Your task to perform on an android device: What's on my calendar today? Image 0: 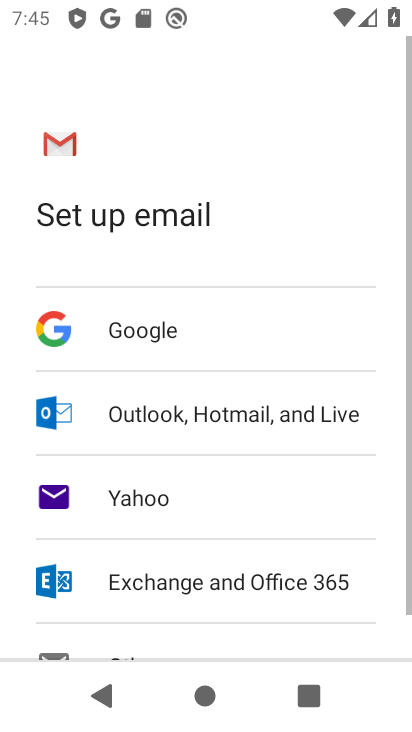
Step 0: drag from (232, 560) to (210, 198)
Your task to perform on an android device: What's on my calendar today? Image 1: 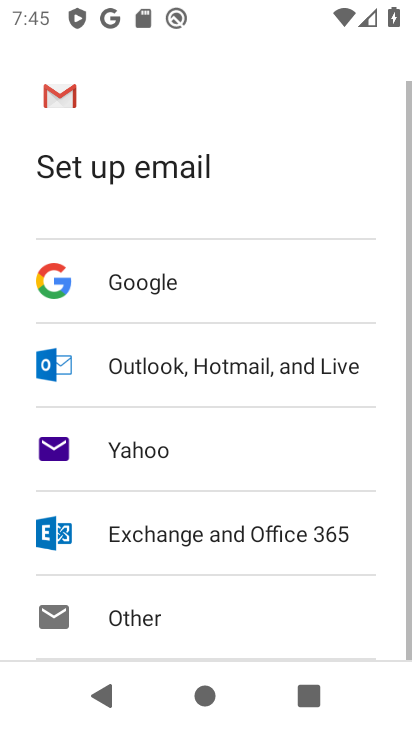
Step 1: press back button
Your task to perform on an android device: What's on my calendar today? Image 2: 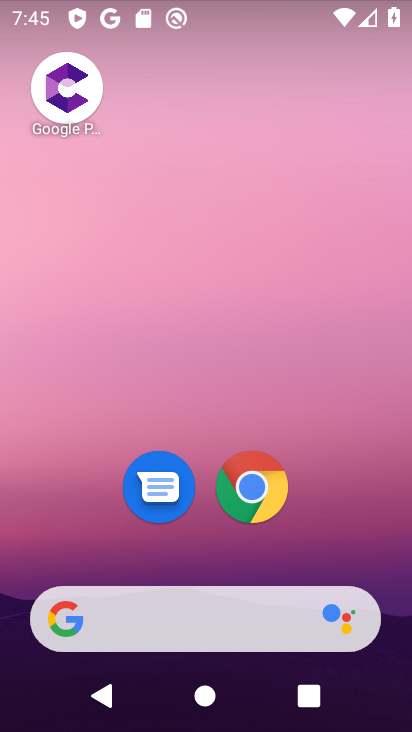
Step 2: drag from (194, 729) to (183, 181)
Your task to perform on an android device: What's on my calendar today? Image 3: 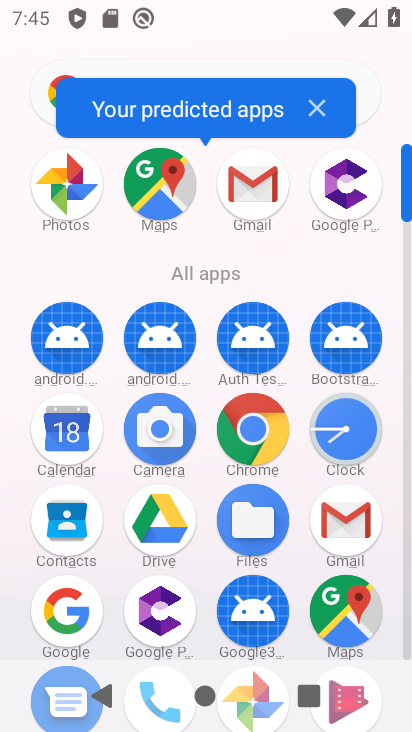
Step 3: click (67, 437)
Your task to perform on an android device: What's on my calendar today? Image 4: 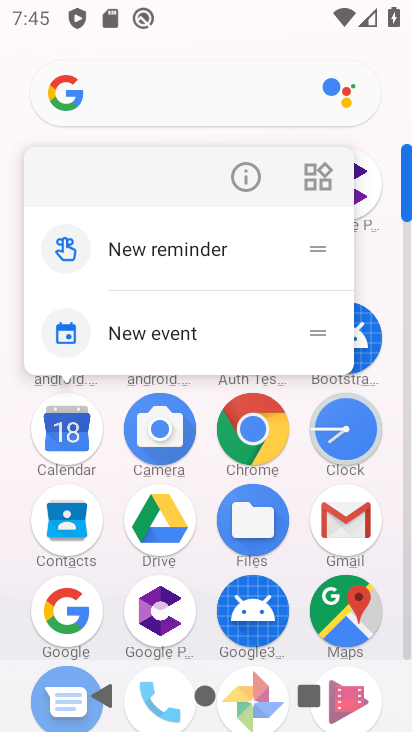
Step 4: click (61, 432)
Your task to perform on an android device: What's on my calendar today? Image 5: 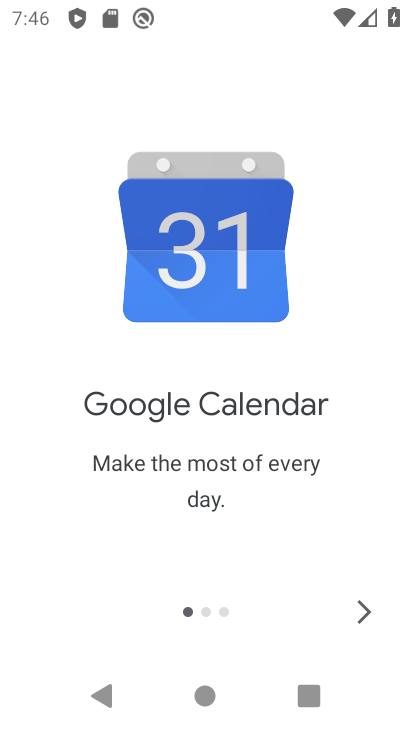
Step 5: click (356, 606)
Your task to perform on an android device: What's on my calendar today? Image 6: 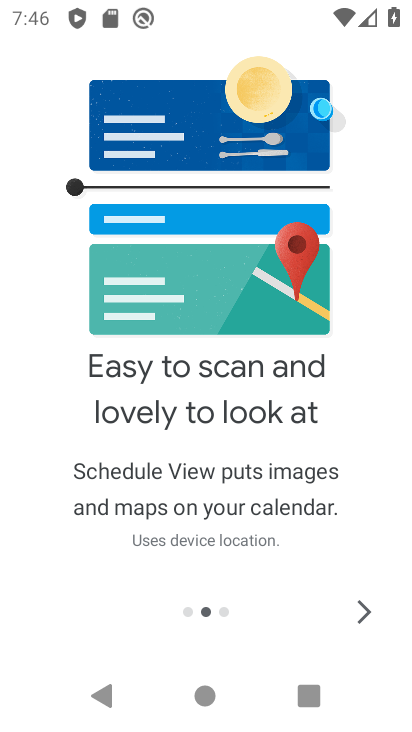
Step 6: click (364, 615)
Your task to perform on an android device: What's on my calendar today? Image 7: 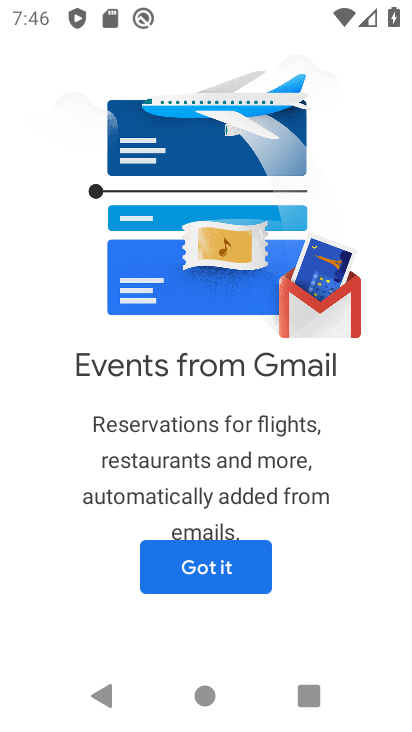
Step 7: click (253, 569)
Your task to perform on an android device: What's on my calendar today? Image 8: 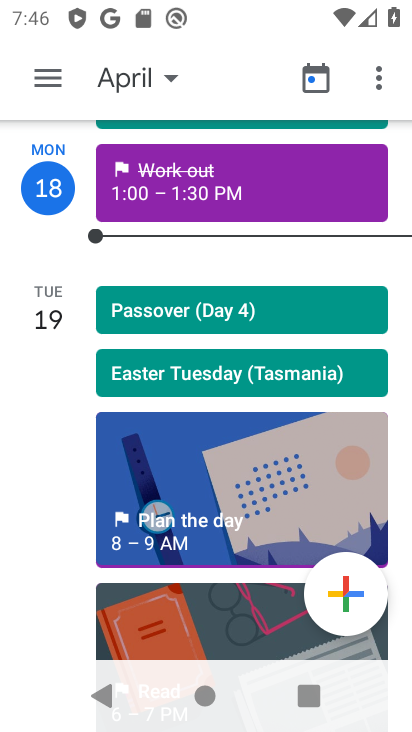
Step 8: drag from (189, 196) to (188, 575)
Your task to perform on an android device: What's on my calendar today? Image 9: 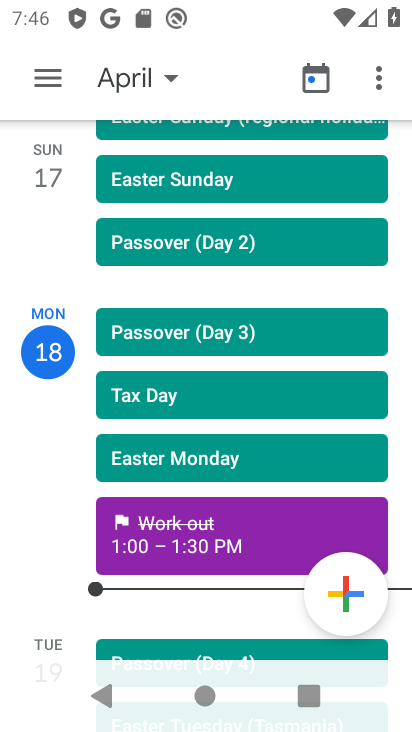
Step 9: drag from (217, 162) to (221, 396)
Your task to perform on an android device: What's on my calendar today? Image 10: 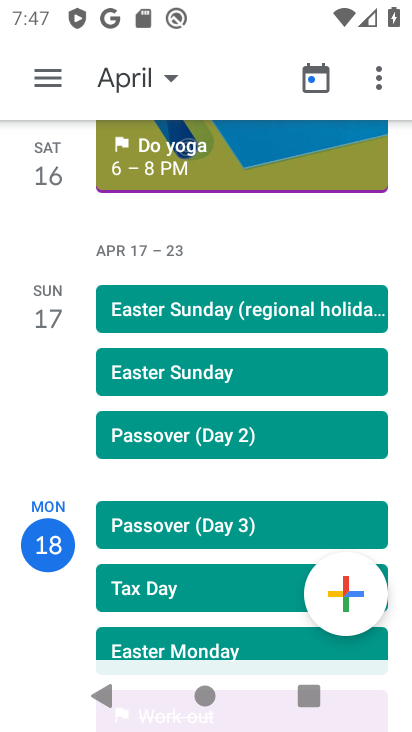
Step 10: click (131, 72)
Your task to perform on an android device: What's on my calendar today? Image 11: 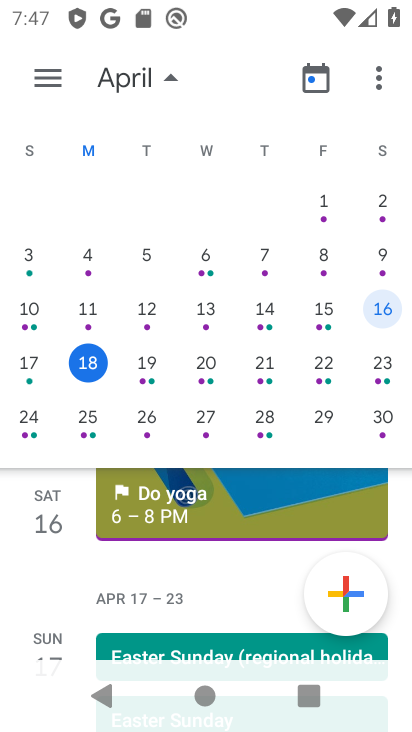
Step 11: click (89, 360)
Your task to perform on an android device: What's on my calendar today? Image 12: 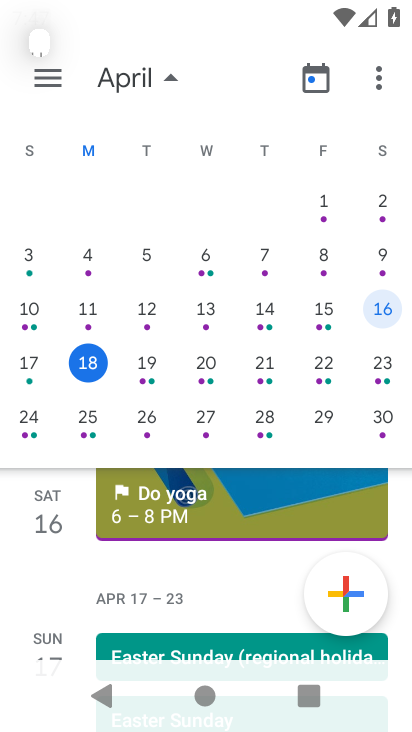
Step 12: click (49, 73)
Your task to perform on an android device: What's on my calendar today? Image 13: 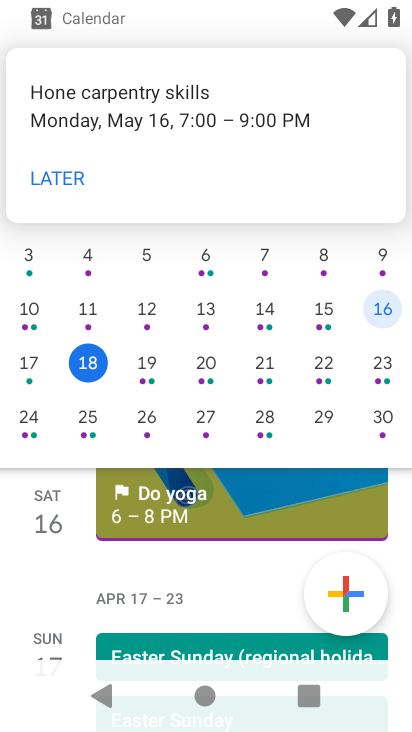
Step 13: click (61, 176)
Your task to perform on an android device: What's on my calendar today? Image 14: 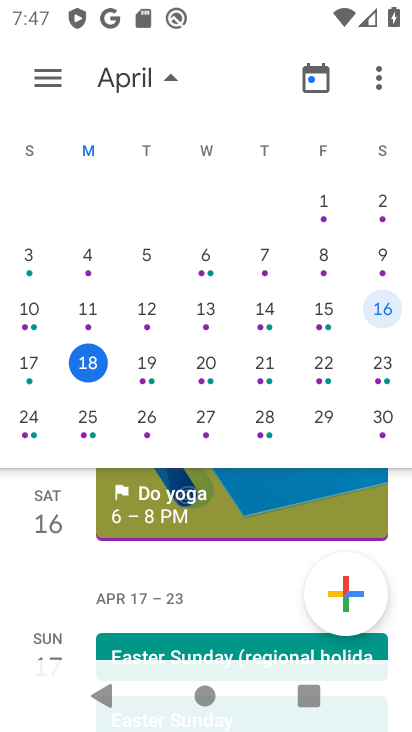
Step 14: click (48, 76)
Your task to perform on an android device: What's on my calendar today? Image 15: 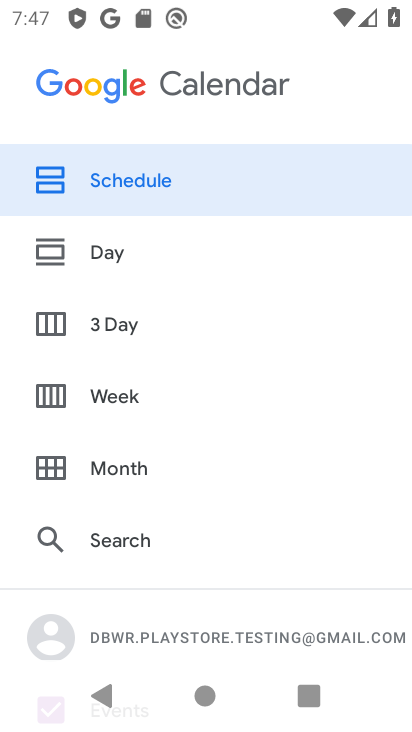
Step 15: click (97, 248)
Your task to perform on an android device: What's on my calendar today? Image 16: 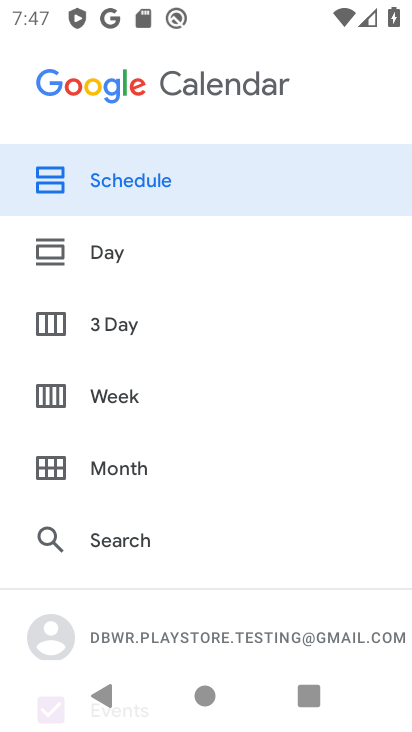
Step 16: click (104, 246)
Your task to perform on an android device: What's on my calendar today? Image 17: 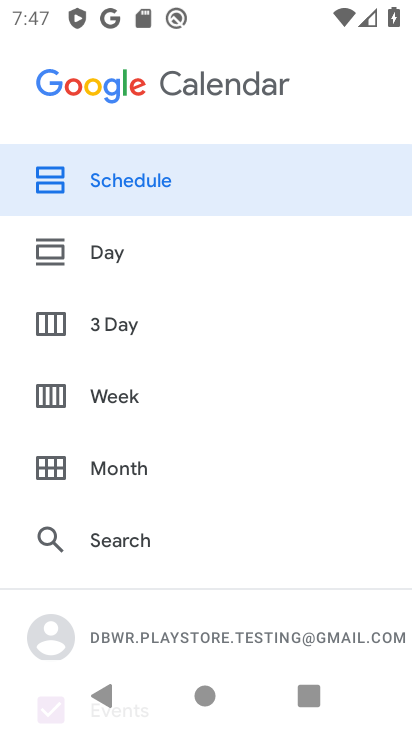
Step 17: click (101, 254)
Your task to perform on an android device: What's on my calendar today? Image 18: 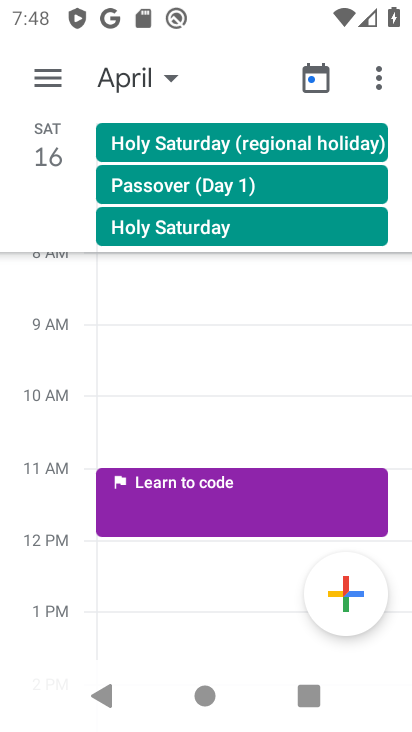
Step 18: task complete